Your task to perform on an android device: Go to calendar. Show me events next week Image 0: 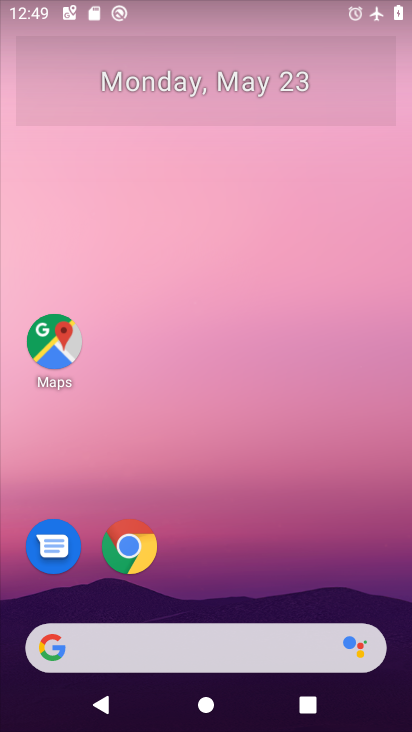
Step 0: drag from (265, 682) to (215, 1)
Your task to perform on an android device: Go to calendar. Show me events next week Image 1: 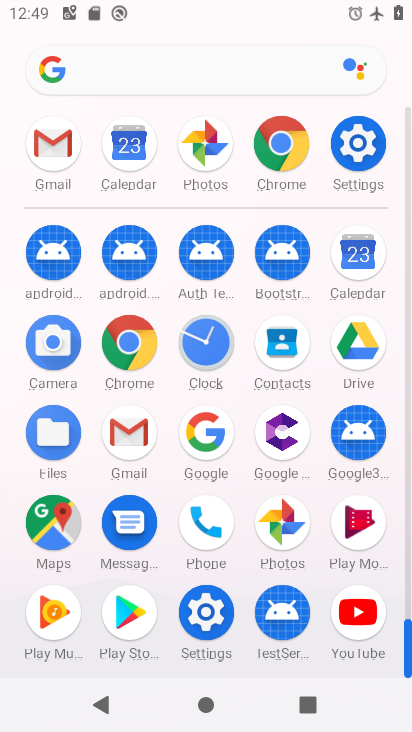
Step 1: click (353, 274)
Your task to perform on an android device: Go to calendar. Show me events next week Image 2: 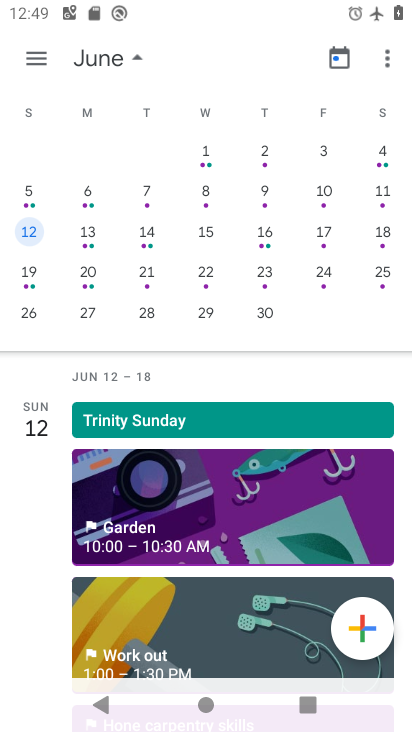
Step 2: drag from (59, 251) to (403, 213)
Your task to perform on an android device: Go to calendar. Show me events next week Image 3: 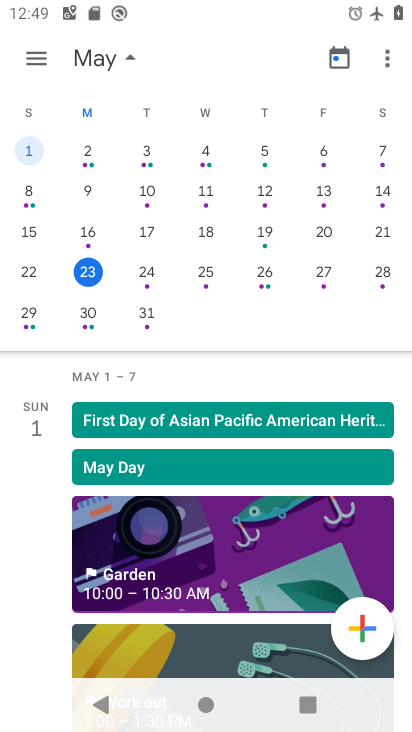
Step 3: click (37, 317)
Your task to perform on an android device: Go to calendar. Show me events next week Image 4: 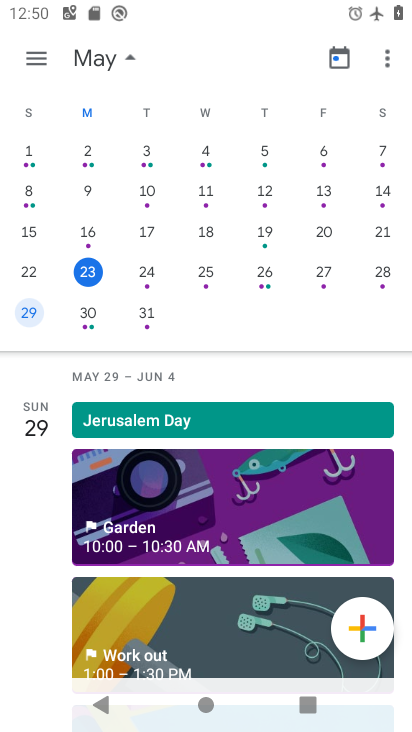
Step 4: task complete